Your task to perform on an android device: Go to battery settings Image 0: 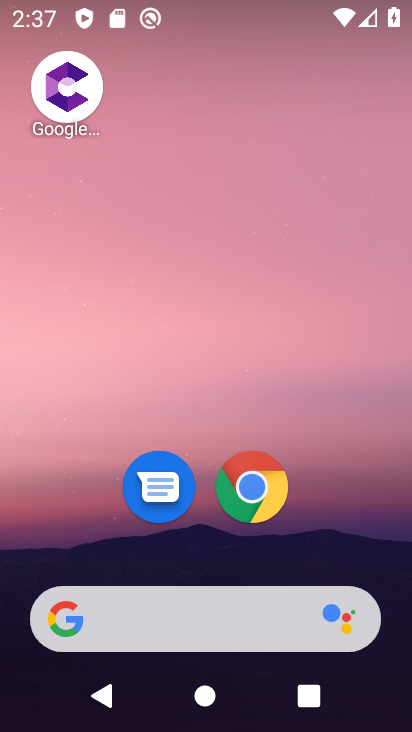
Step 0: drag from (258, 610) to (237, 1)
Your task to perform on an android device: Go to battery settings Image 1: 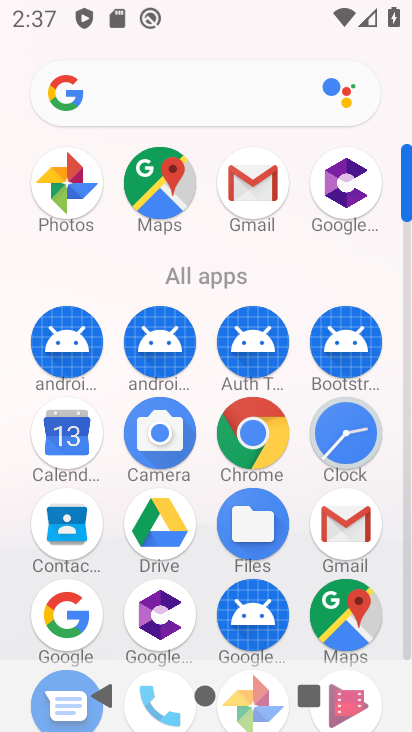
Step 1: drag from (183, 333) to (192, 9)
Your task to perform on an android device: Go to battery settings Image 2: 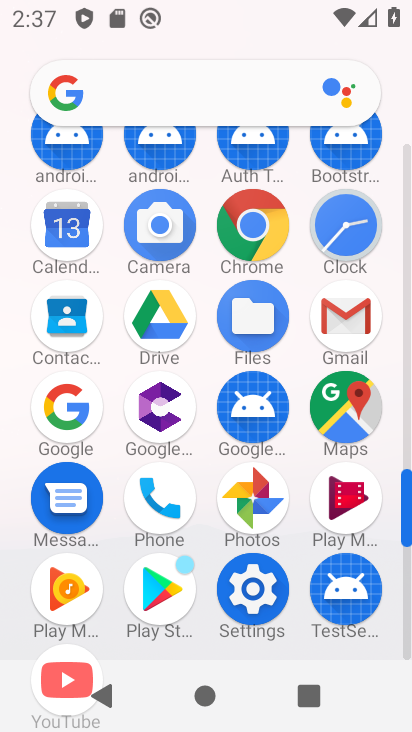
Step 2: click (255, 616)
Your task to perform on an android device: Go to battery settings Image 3: 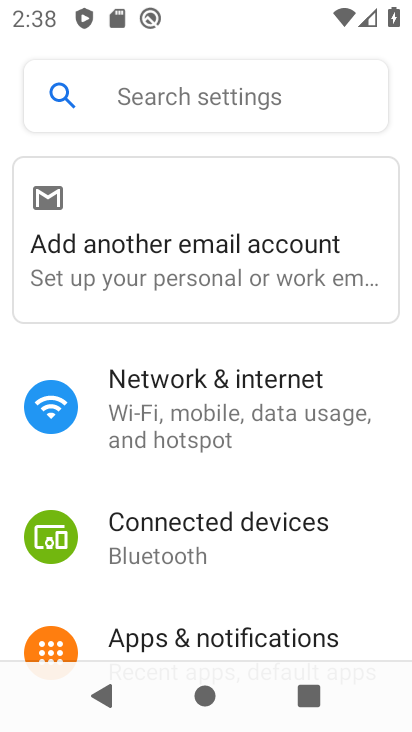
Step 3: drag from (185, 564) to (174, 344)
Your task to perform on an android device: Go to battery settings Image 4: 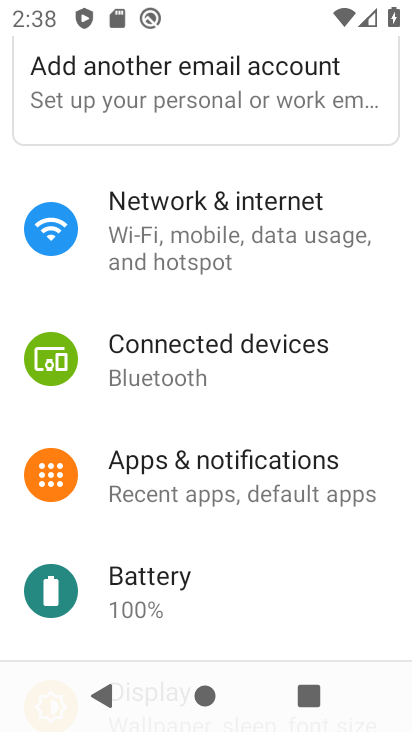
Step 4: click (208, 580)
Your task to perform on an android device: Go to battery settings Image 5: 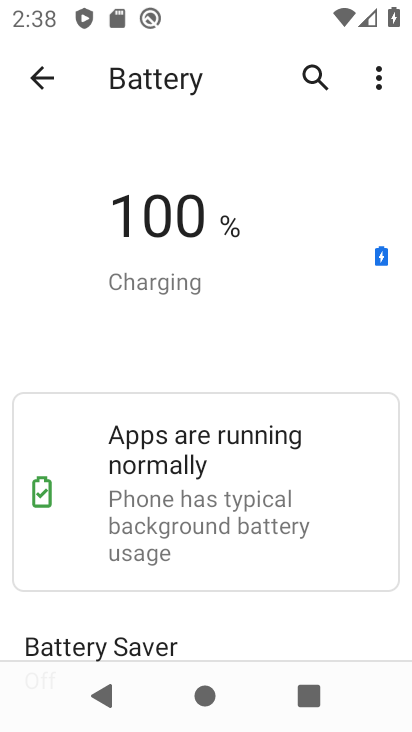
Step 5: task complete